Your task to perform on an android device: uninstall "Google Play Music" Image 0: 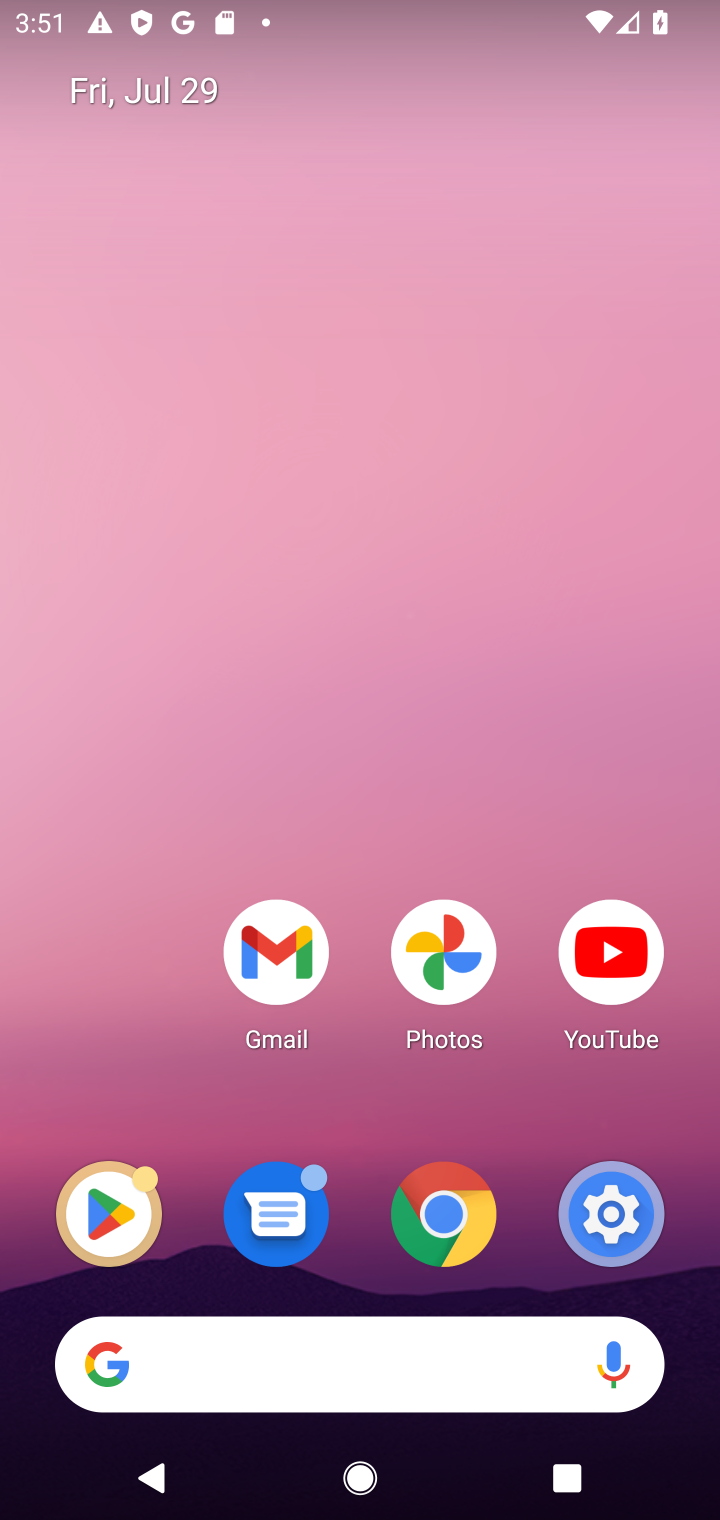
Step 0: drag from (353, 1041) to (357, 345)
Your task to perform on an android device: uninstall "Google Play Music" Image 1: 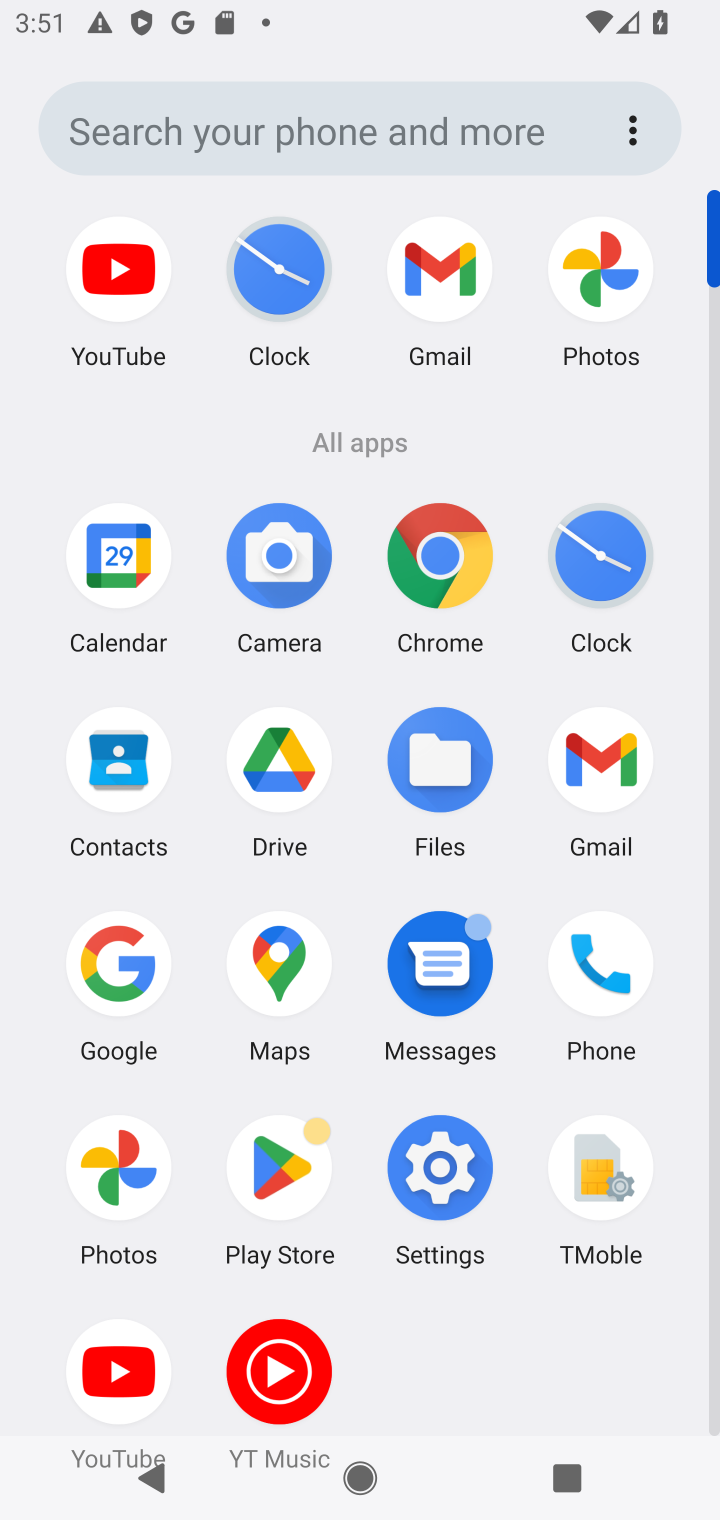
Step 1: click (297, 1173)
Your task to perform on an android device: uninstall "Google Play Music" Image 2: 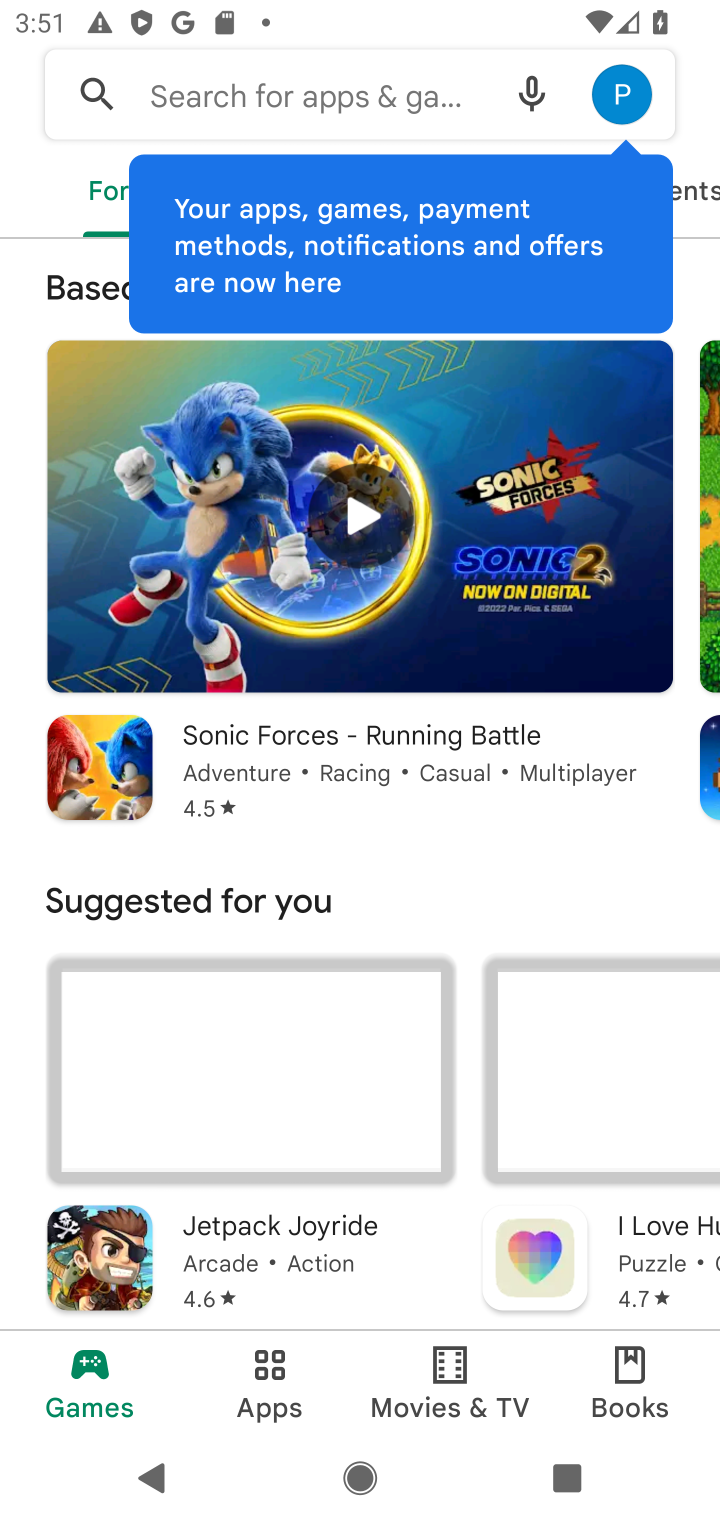
Step 2: click (259, 82)
Your task to perform on an android device: uninstall "Google Play Music" Image 3: 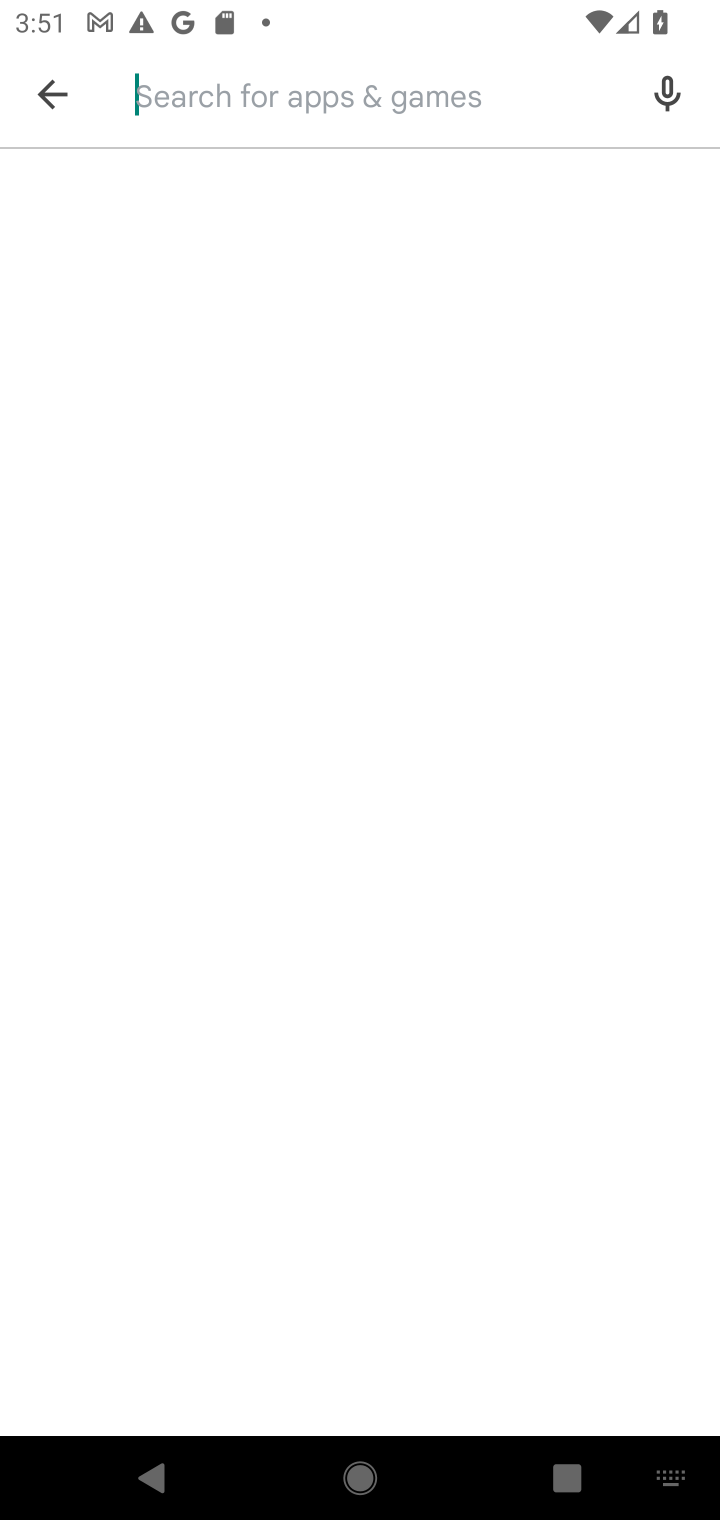
Step 3: type "google play music"
Your task to perform on an android device: uninstall "Google Play Music" Image 4: 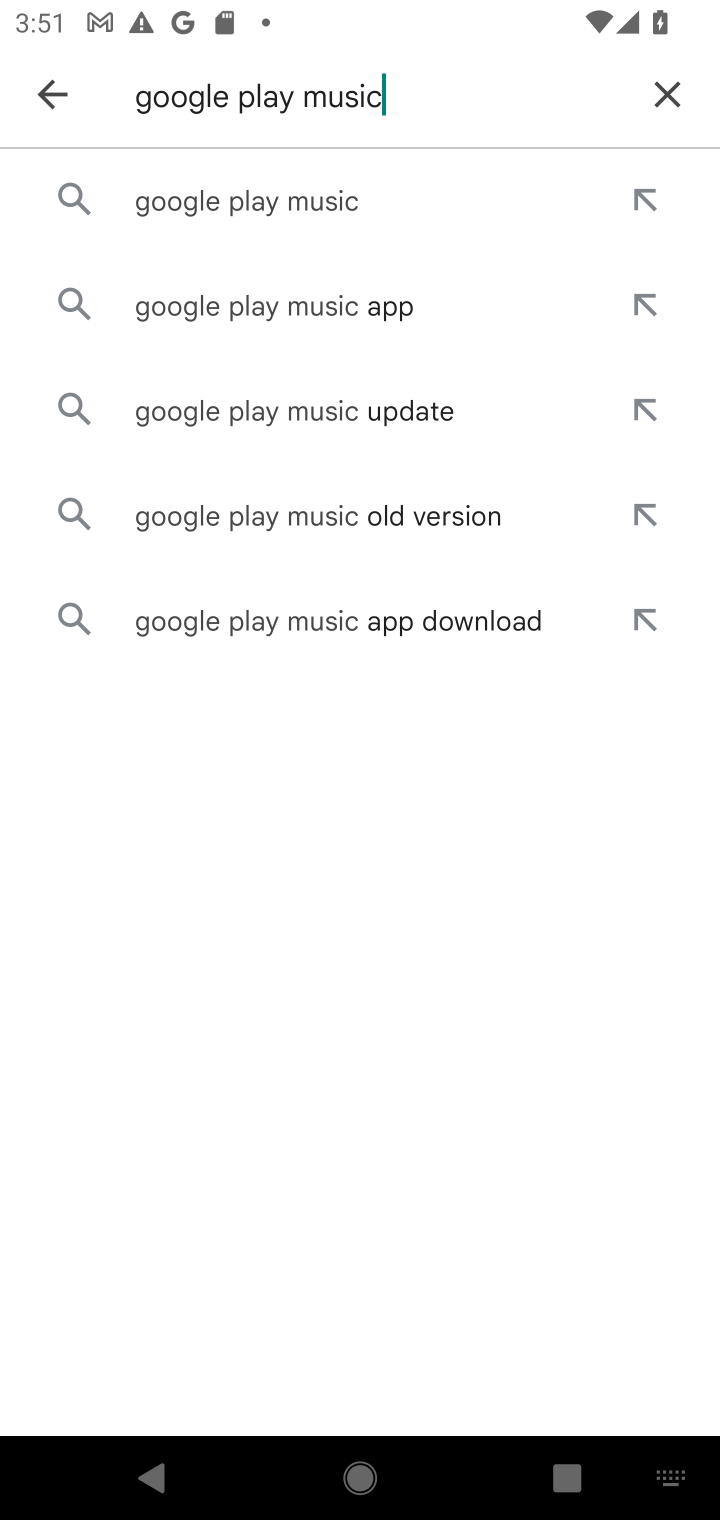
Step 4: click (342, 196)
Your task to perform on an android device: uninstall "Google Play Music" Image 5: 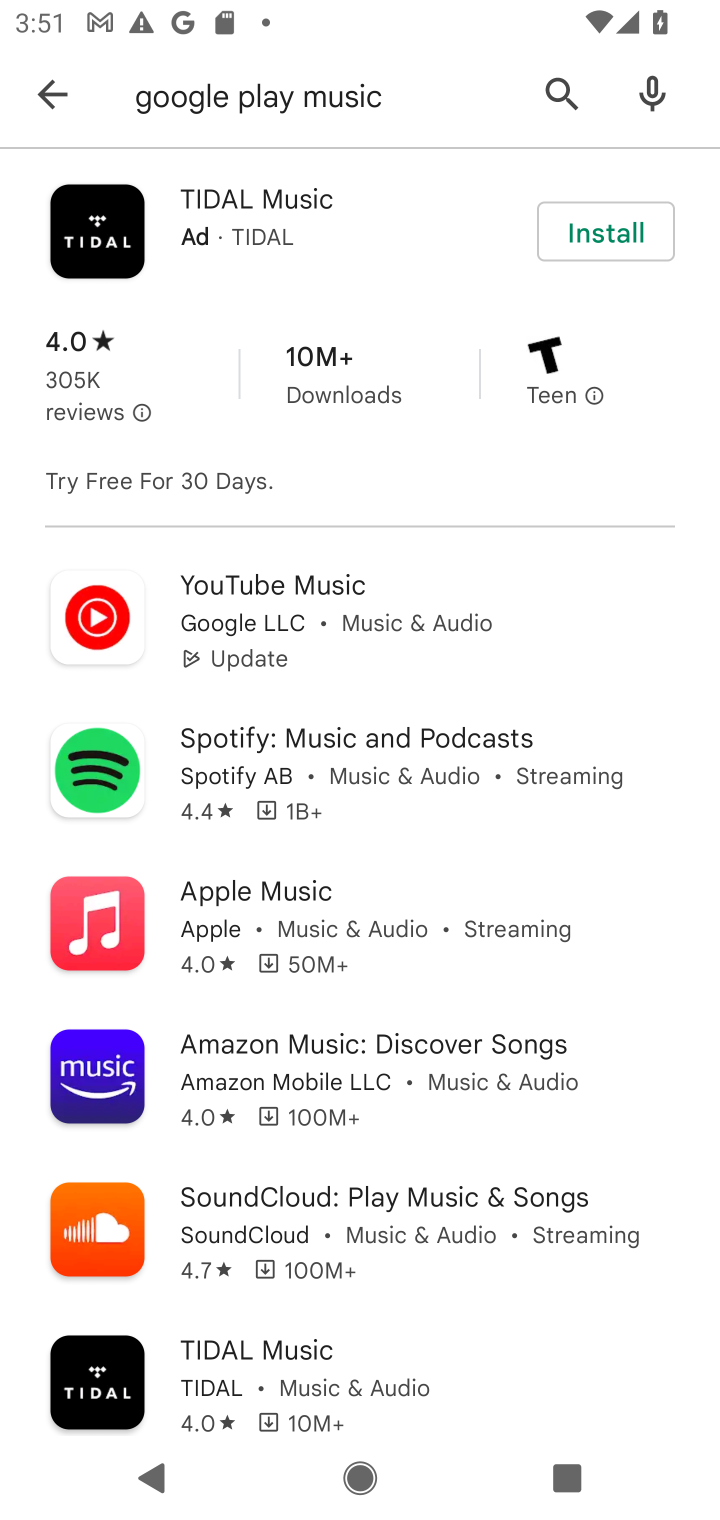
Step 5: task complete